Your task to perform on an android device: manage bookmarks in the chrome app Image 0: 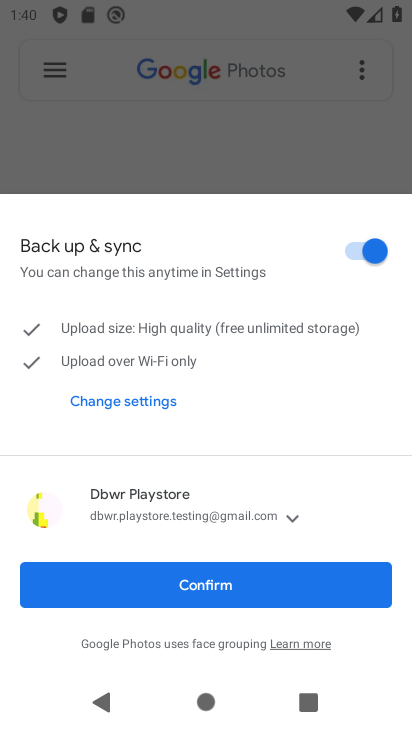
Step 0: click (187, 586)
Your task to perform on an android device: manage bookmarks in the chrome app Image 1: 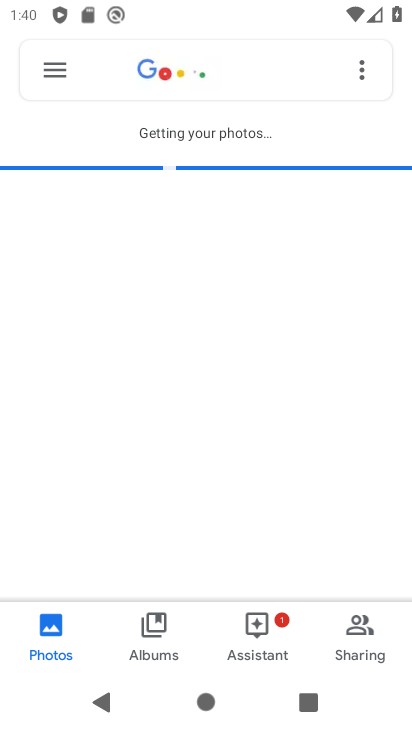
Step 1: press back button
Your task to perform on an android device: manage bookmarks in the chrome app Image 2: 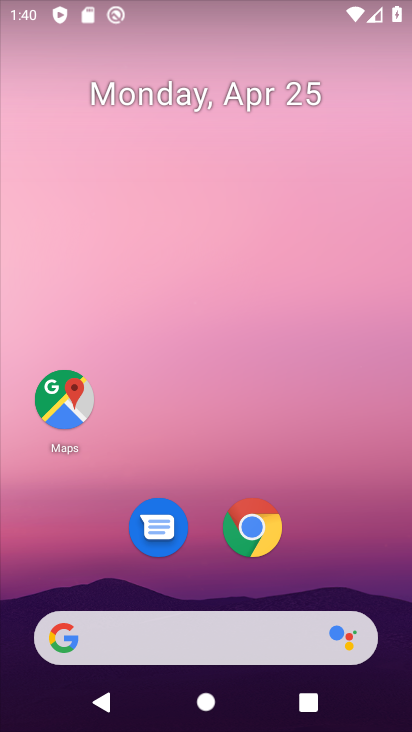
Step 2: drag from (327, 419) to (314, 49)
Your task to perform on an android device: manage bookmarks in the chrome app Image 3: 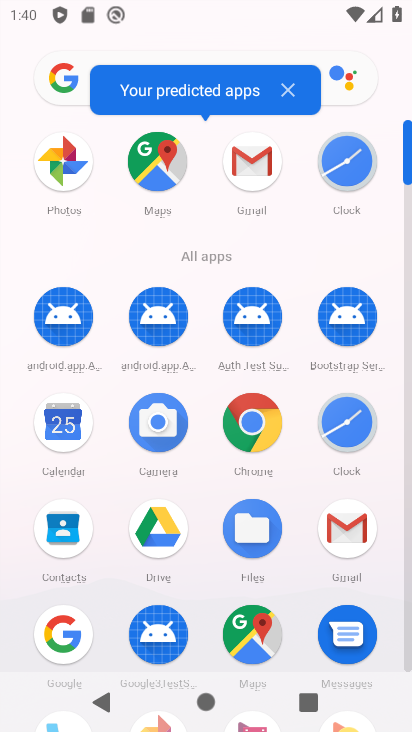
Step 3: click (252, 418)
Your task to perform on an android device: manage bookmarks in the chrome app Image 4: 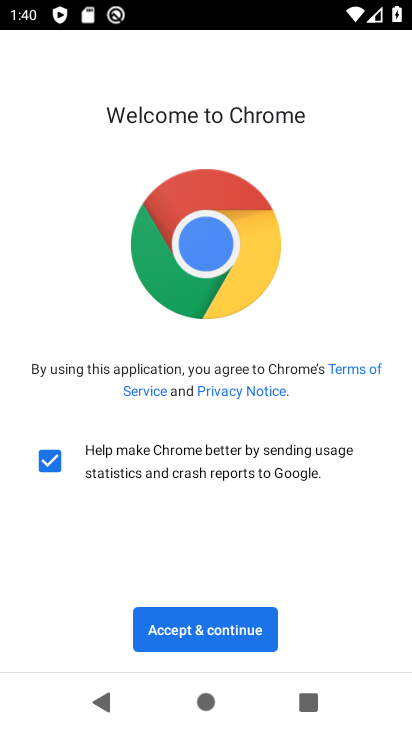
Step 4: click (211, 621)
Your task to perform on an android device: manage bookmarks in the chrome app Image 5: 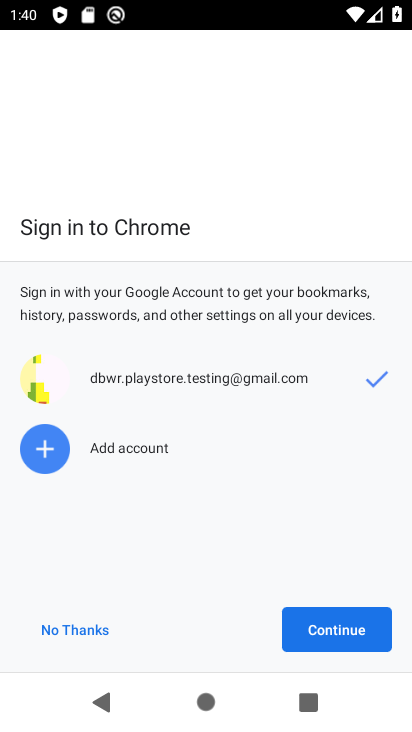
Step 5: click (295, 624)
Your task to perform on an android device: manage bookmarks in the chrome app Image 6: 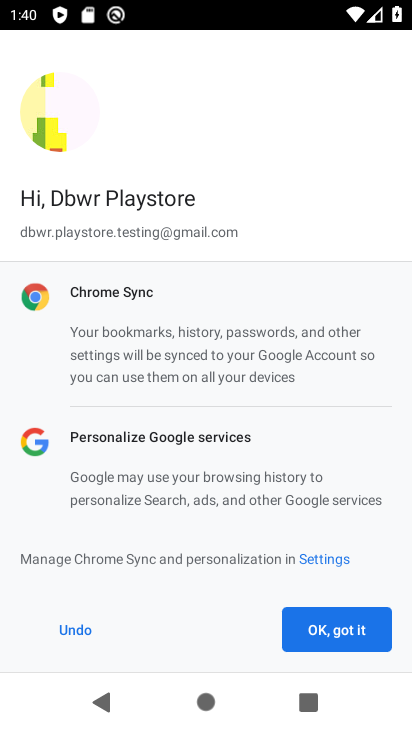
Step 6: click (322, 625)
Your task to perform on an android device: manage bookmarks in the chrome app Image 7: 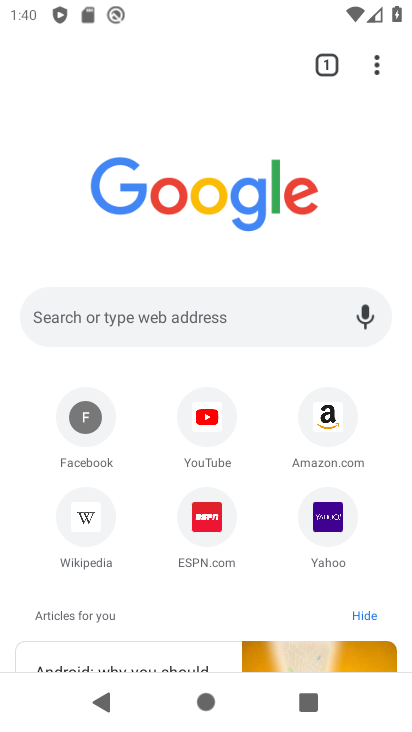
Step 7: click (372, 68)
Your task to perform on an android device: manage bookmarks in the chrome app Image 8: 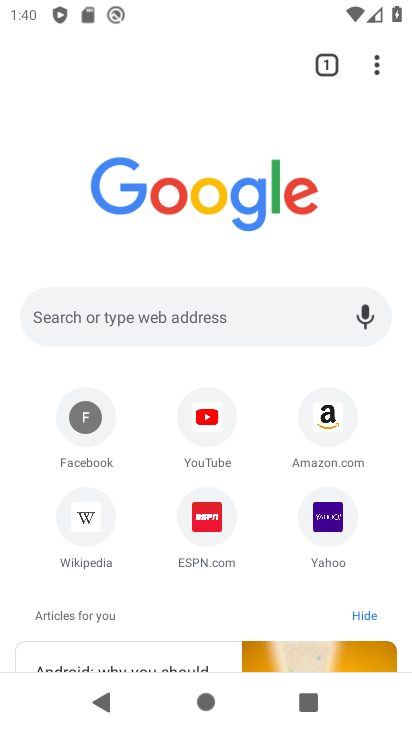
Step 8: task complete